Your task to perform on an android device: Go to sound settings Image 0: 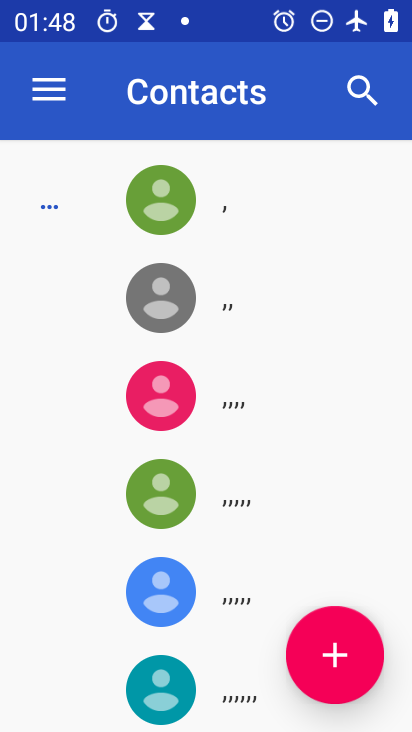
Step 0: press home button
Your task to perform on an android device: Go to sound settings Image 1: 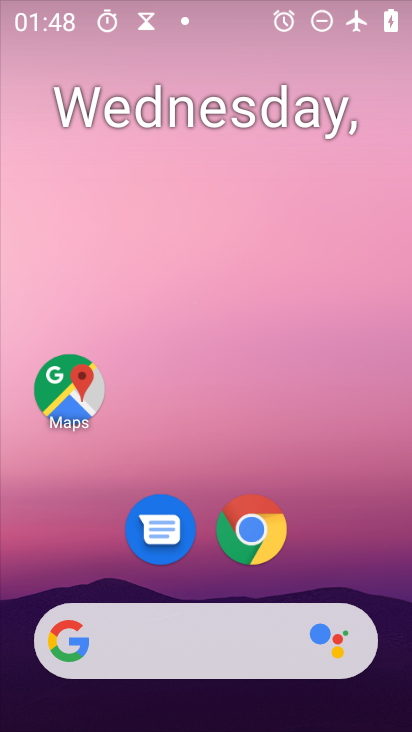
Step 1: drag from (245, 672) to (344, 112)
Your task to perform on an android device: Go to sound settings Image 2: 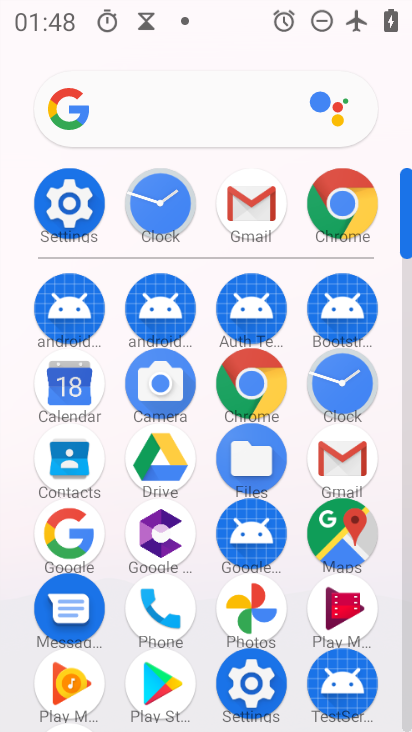
Step 2: click (74, 203)
Your task to perform on an android device: Go to sound settings Image 3: 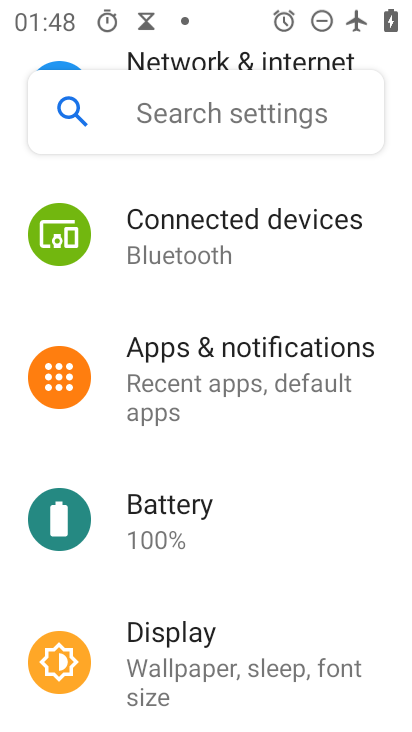
Step 3: drag from (212, 603) to (278, 25)
Your task to perform on an android device: Go to sound settings Image 4: 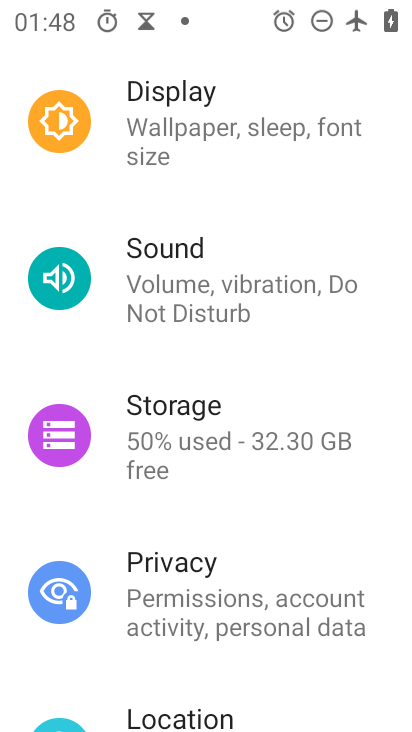
Step 4: click (202, 313)
Your task to perform on an android device: Go to sound settings Image 5: 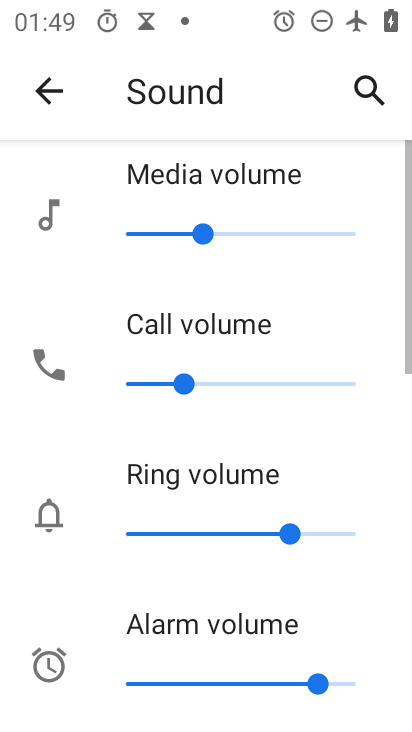
Step 5: task complete